Your task to perform on an android device: What is the recent news? Image 0: 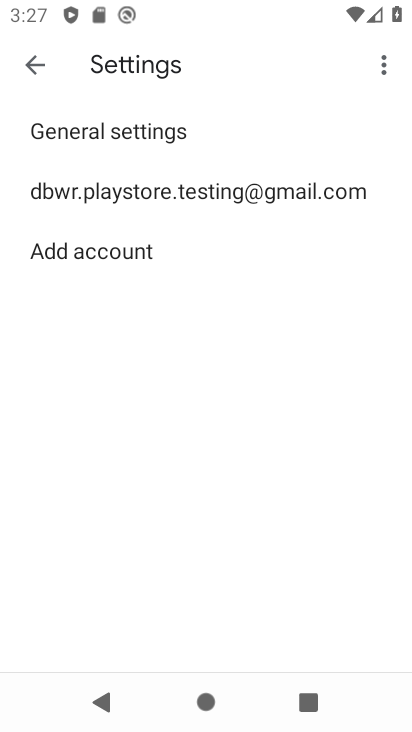
Step 0: press home button
Your task to perform on an android device: What is the recent news? Image 1: 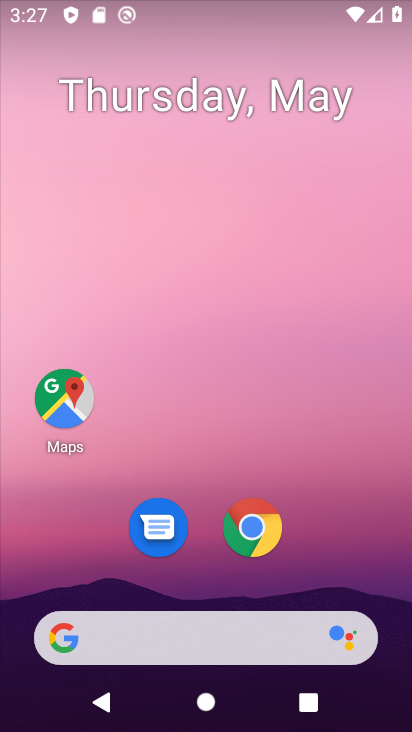
Step 1: task complete